Your task to perform on an android device: turn off priority inbox in the gmail app Image 0: 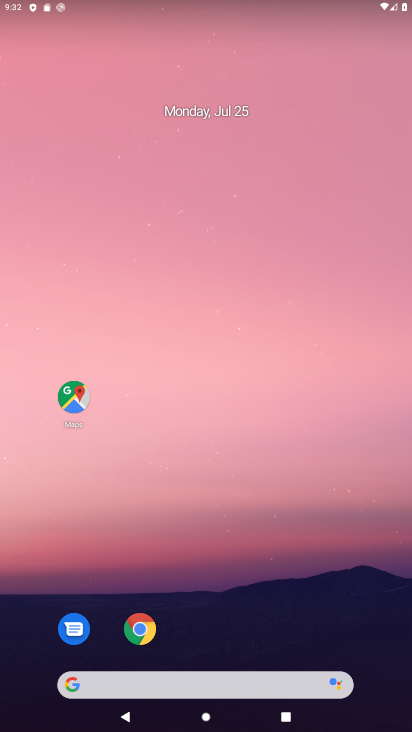
Step 0: drag from (311, 180) to (318, 2)
Your task to perform on an android device: turn off priority inbox in the gmail app Image 1: 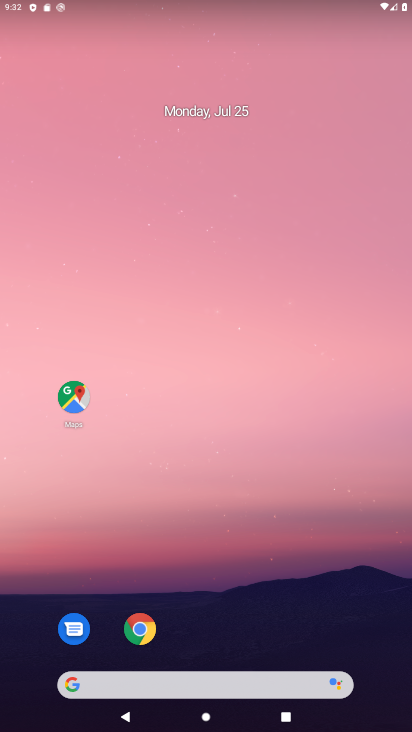
Step 1: drag from (318, 560) to (312, 15)
Your task to perform on an android device: turn off priority inbox in the gmail app Image 2: 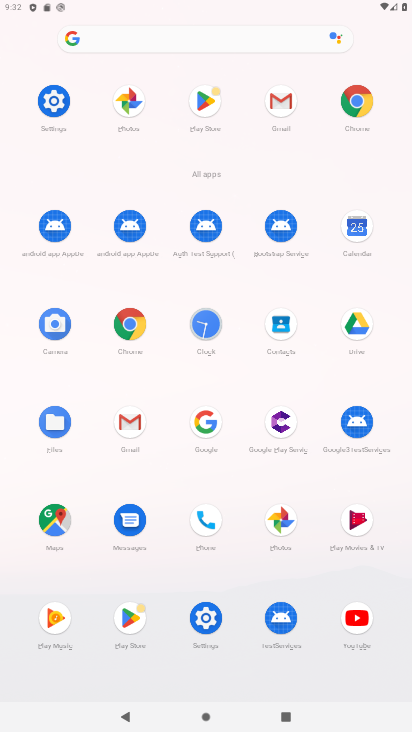
Step 2: click (285, 111)
Your task to perform on an android device: turn off priority inbox in the gmail app Image 3: 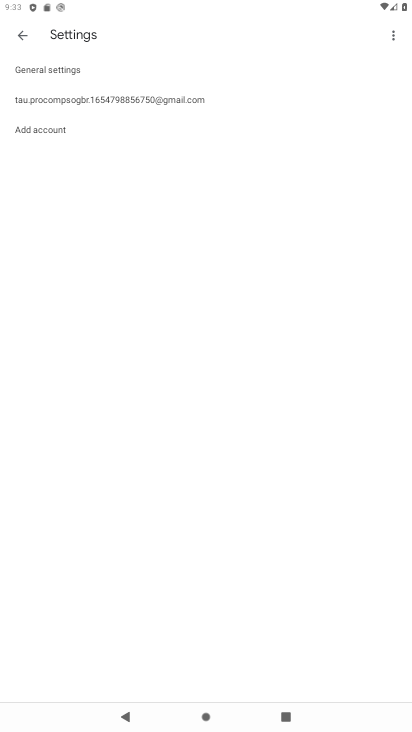
Step 3: click (200, 104)
Your task to perform on an android device: turn off priority inbox in the gmail app Image 4: 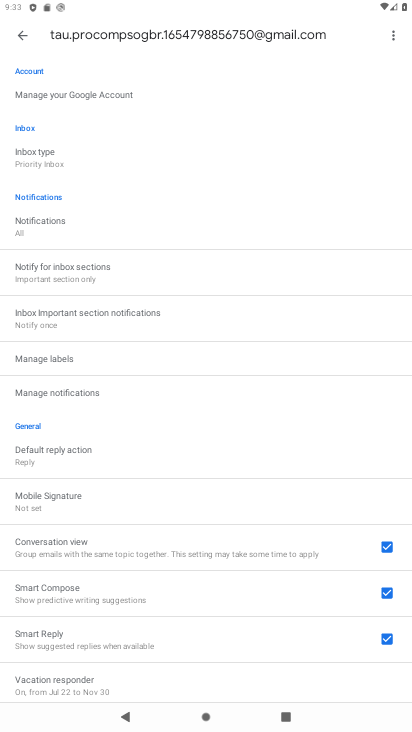
Step 4: click (54, 169)
Your task to perform on an android device: turn off priority inbox in the gmail app Image 5: 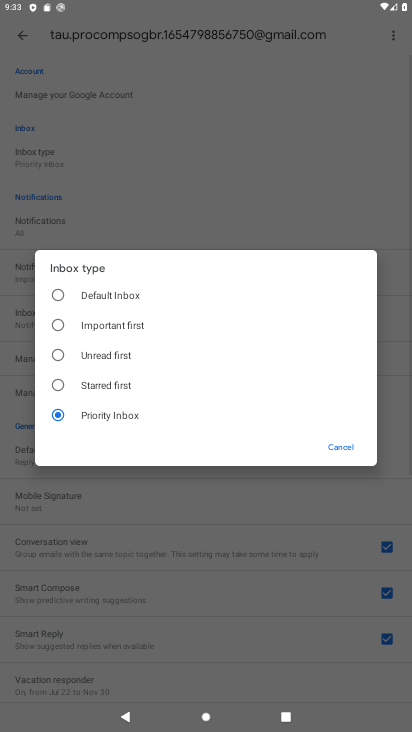
Step 5: task complete